Your task to perform on an android device: Go to location settings Image 0: 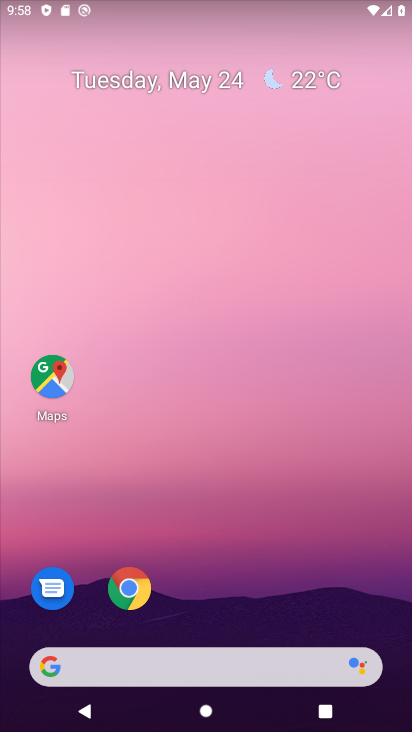
Step 0: drag from (233, 605) to (221, 24)
Your task to perform on an android device: Go to location settings Image 1: 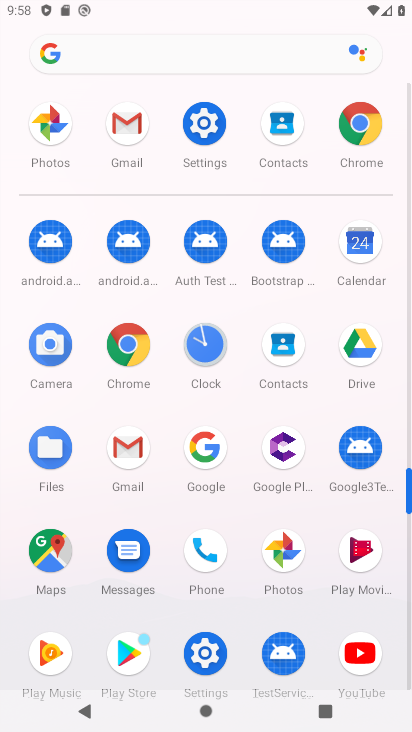
Step 1: click (199, 665)
Your task to perform on an android device: Go to location settings Image 2: 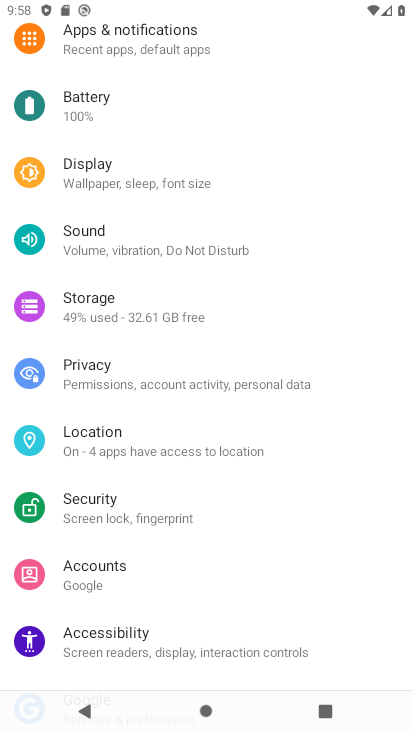
Step 2: click (161, 455)
Your task to perform on an android device: Go to location settings Image 3: 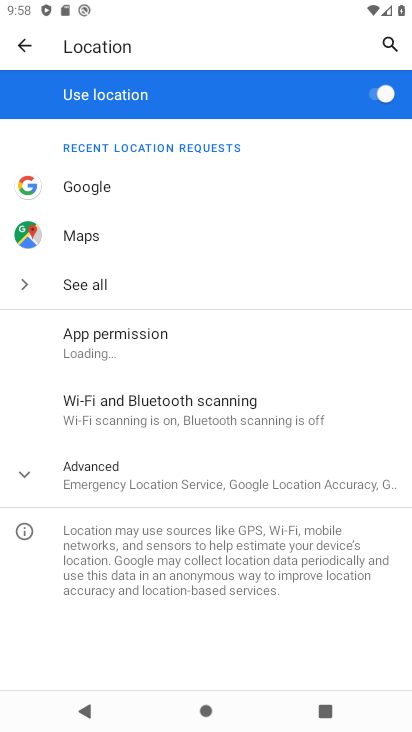
Step 3: task complete